Your task to perform on an android device: toggle location history Image 0: 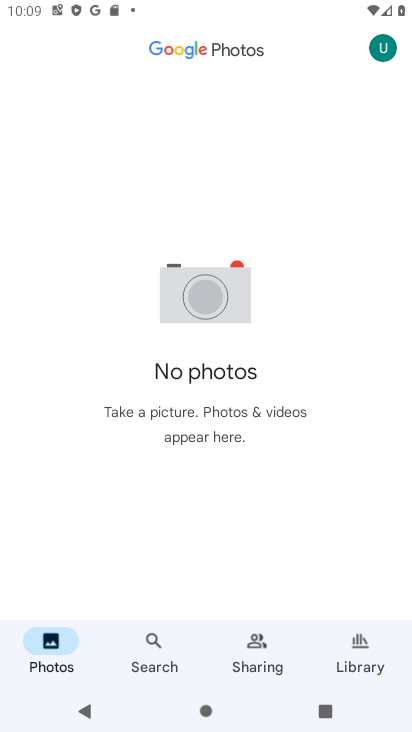
Step 0: press home button
Your task to perform on an android device: toggle location history Image 1: 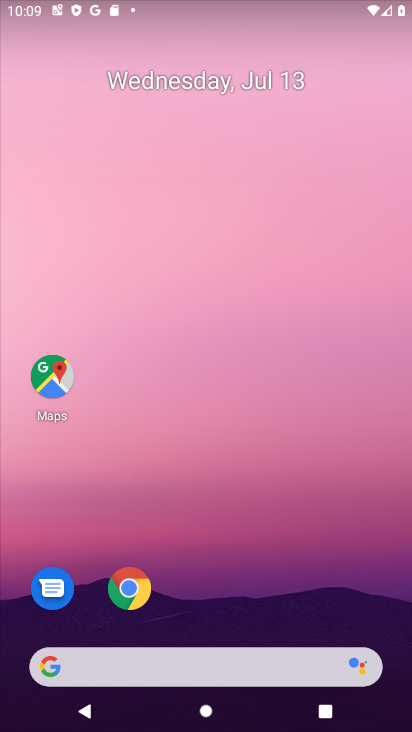
Step 1: drag from (245, 608) to (240, 41)
Your task to perform on an android device: toggle location history Image 2: 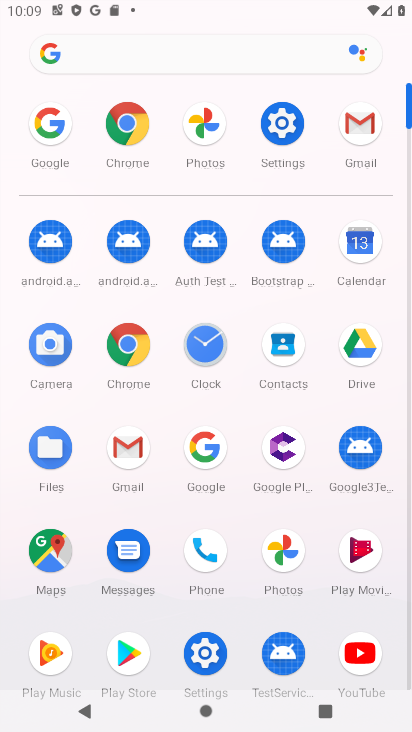
Step 2: click (285, 116)
Your task to perform on an android device: toggle location history Image 3: 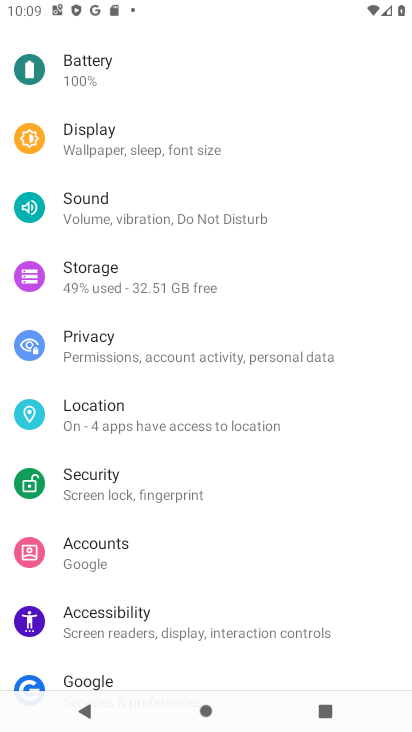
Step 3: click (140, 414)
Your task to perform on an android device: toggle location history Image 4: 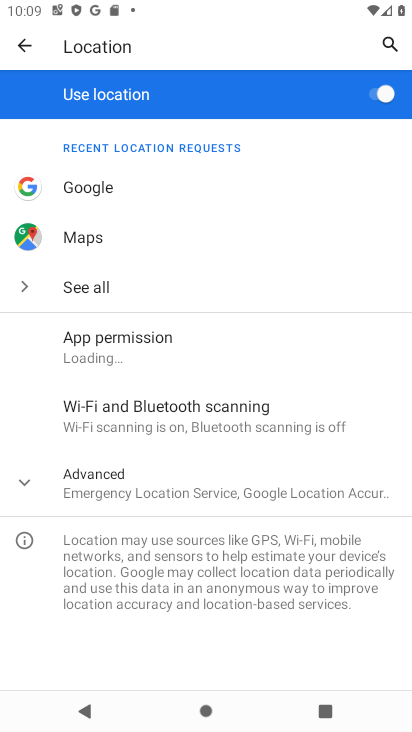
Step 4: click (110, 477)
Your task to perform on an android device: toggle location history Image 5: 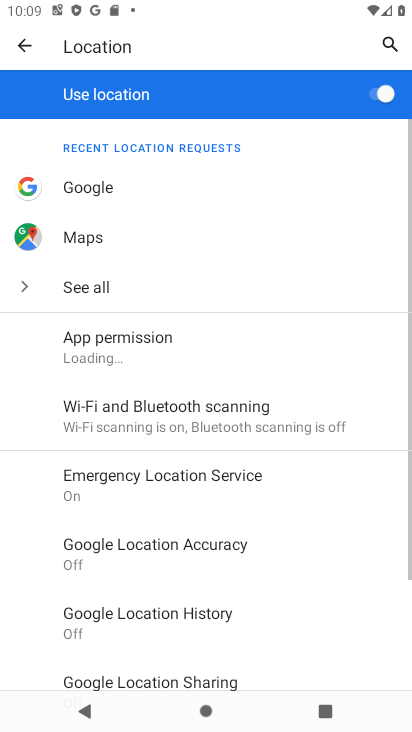
Step 5: click (218, 619)
Your task to perform on an android device: toggle location history Image 6: 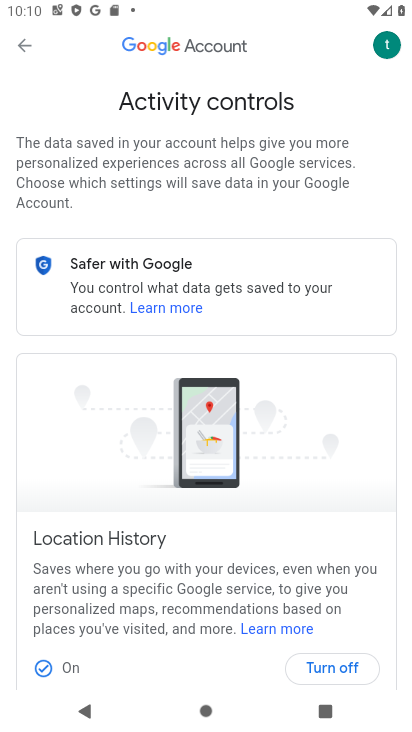
Step 6: drag from (304, 612) to (286, 351)
Your task to perform on an android device: toggle location history Image 7: 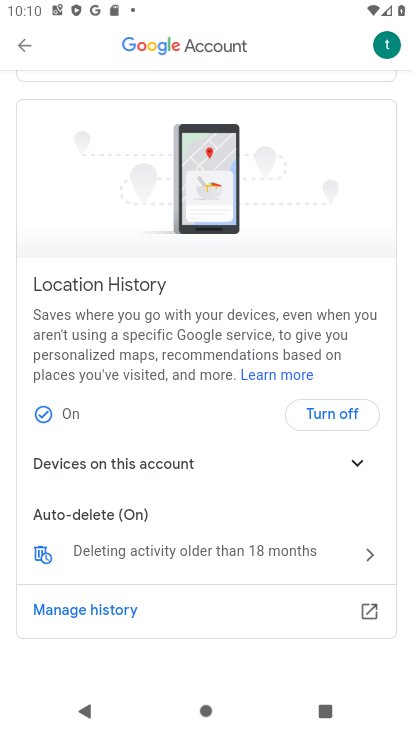
Step 7: click (335, 410)
Your task to perform on an android device: toggle location history Image 8: 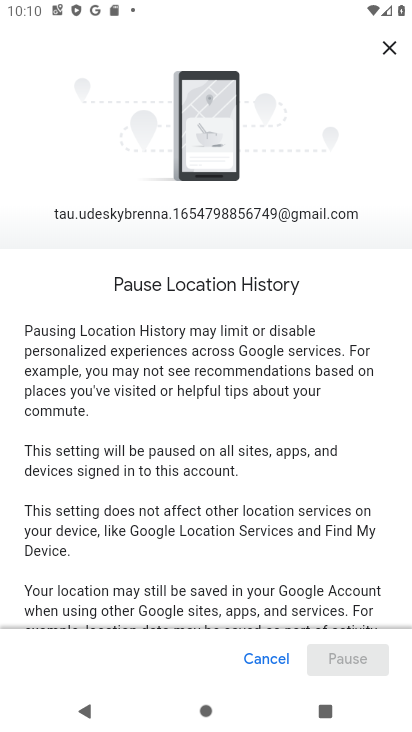
Step 8: drag from (353, 553) to (311, 110)
Your task to perform on an android device: toggle location history Image 9: 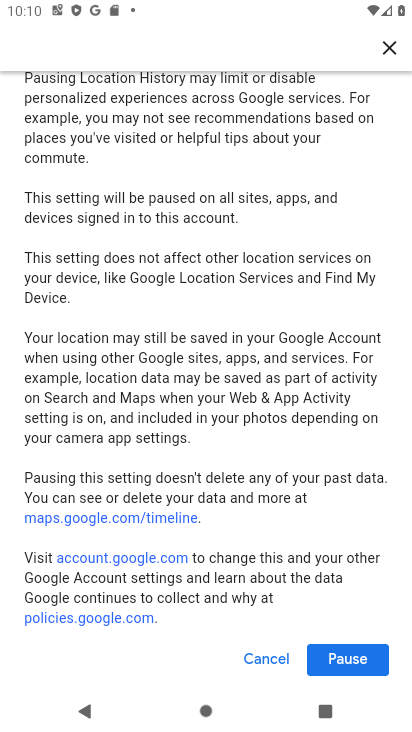
Step 9: click (346, 646)
Your task to perform on an android device: toggle location history Image 10: 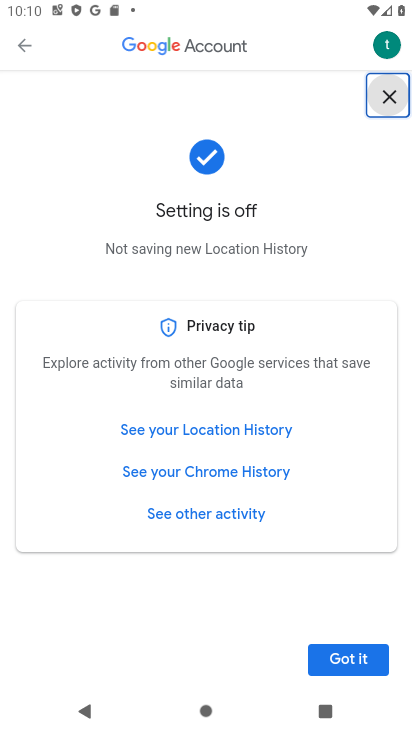
Step 10: task complete